Your task to perform on an android device: Go to privacy settings Image 0: 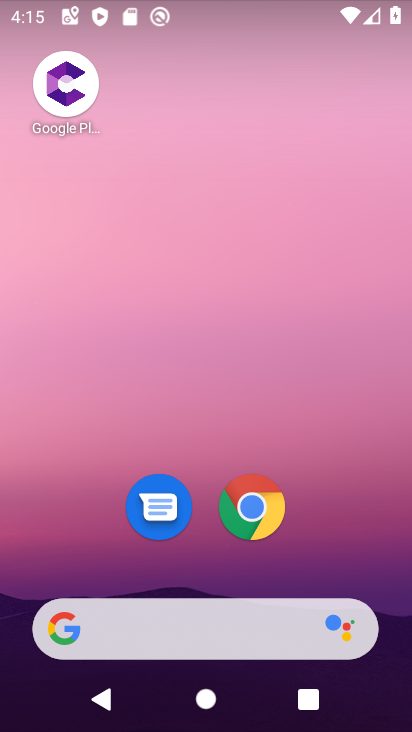
Step 0: drag from (212, 645) to (301, 52)
Your task to perform on an android device: Go to privacy settings Image 1: 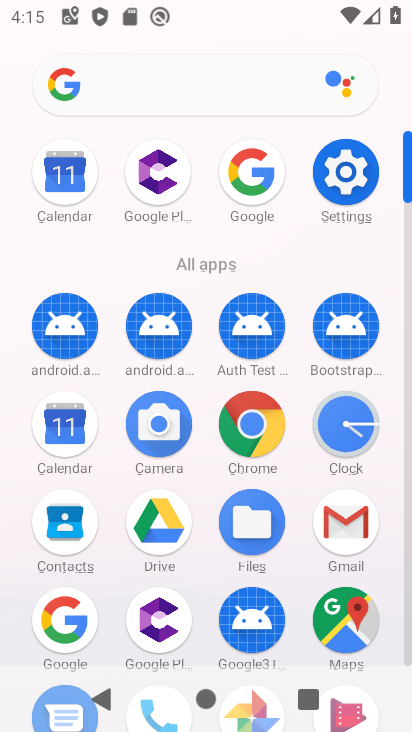
Step 1: click (340, 177)
Your task to perform on an android device: Go to privacy settings Image 2: 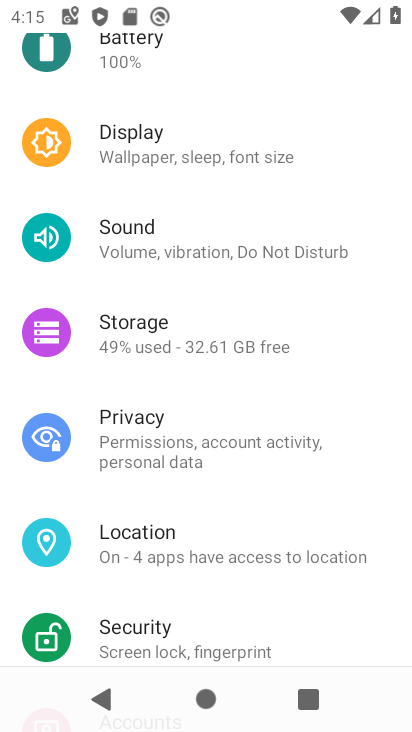
Step 2: click (161, 459)
Your task to perform on an android device: Go to privacy settings Image 3: 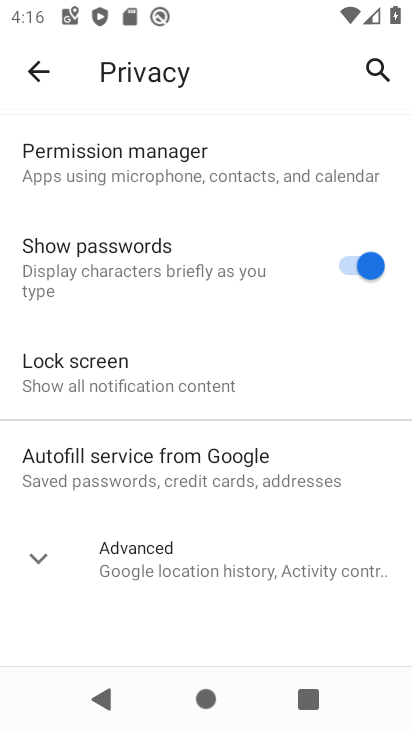
Step 3: task complete